Your task to perform on an android device: see tabs open on other devices in the chrome app Image 0: 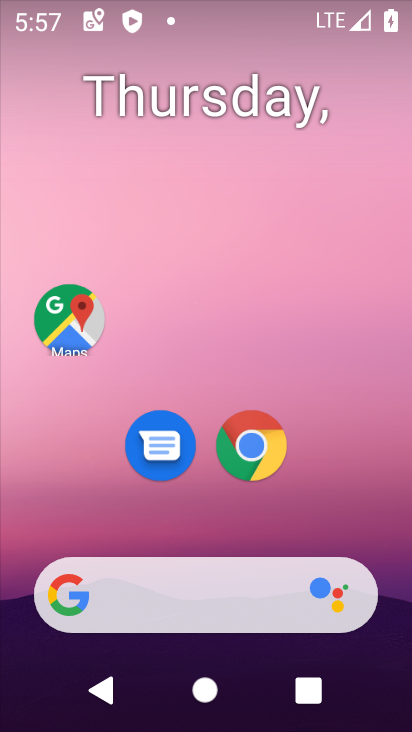
Step 0: drag from (354, 488) to (363, 411)
Your task to perform on an android device: see tabs open on other devices in the chrome app Image 1: 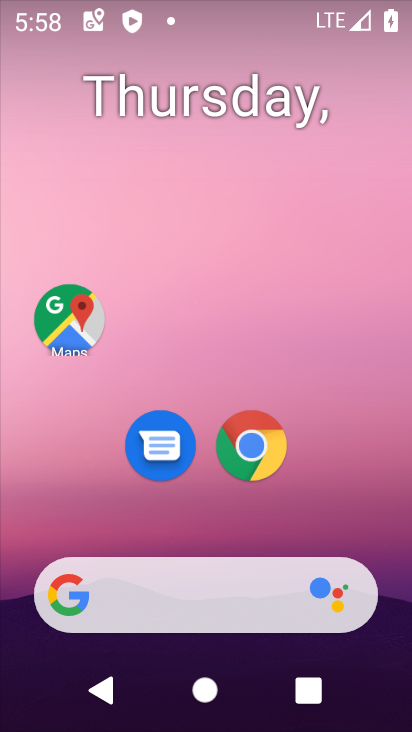
Step 1: click (249, 440)
Your task to perform on an android device: see tabs open on other devices in the chrome app Image 2: 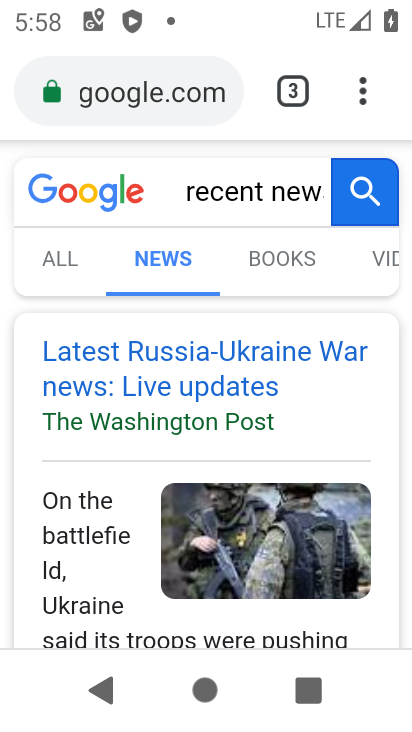
Step 2: task complete